Your task to perform on an android device: Open CNN.com Image 0: 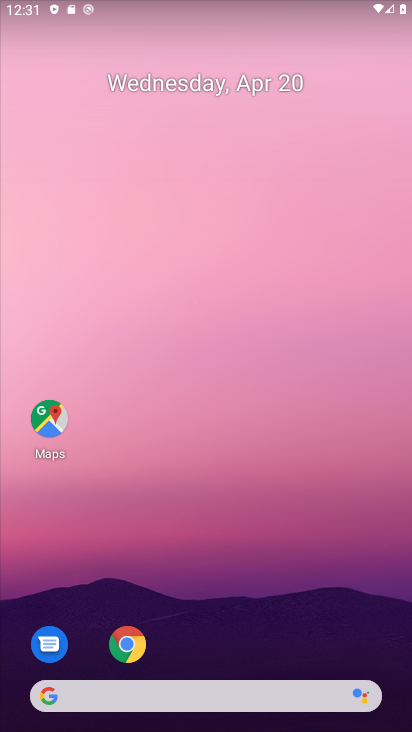
Step 0: click (108, 697)
Your task to perform on an android device: Open CNN.com Image 1: 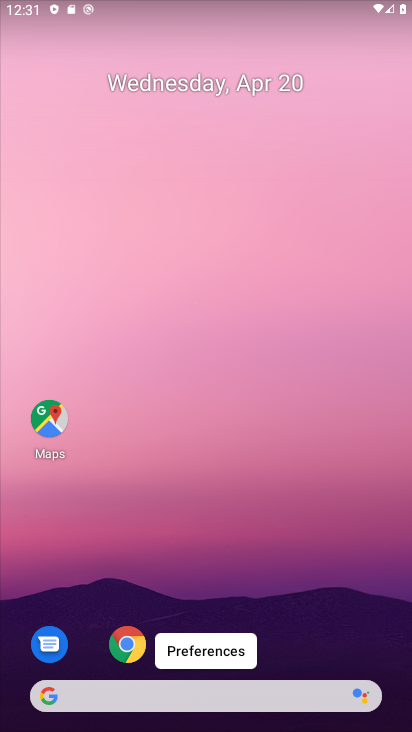
Step 1: click (108, 697)
Your task to perform on an android device: Open CNN.com Image 2: 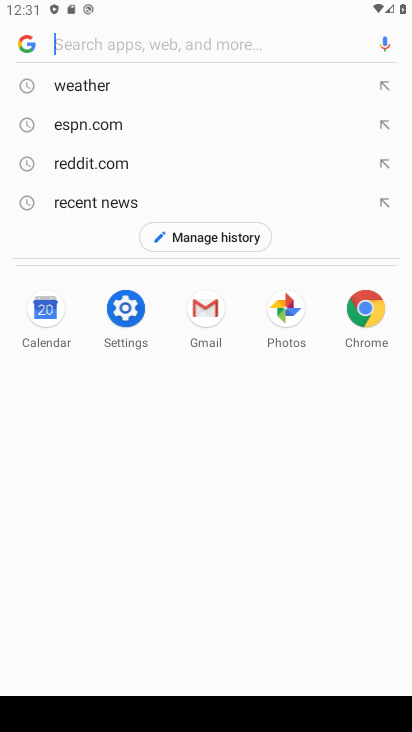
Step 2: type "cnn.com"
Your task to perform on an android device: Open CNN.com Image 3: 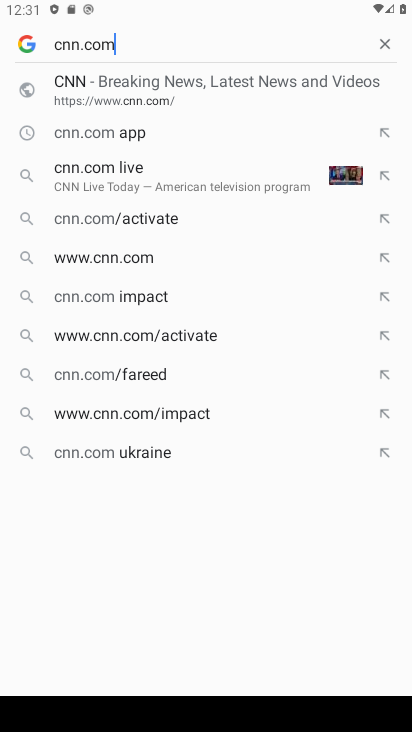
Step 3: click (144, 84)
Your task to perform on an android device: Open CNN.com Image 4: 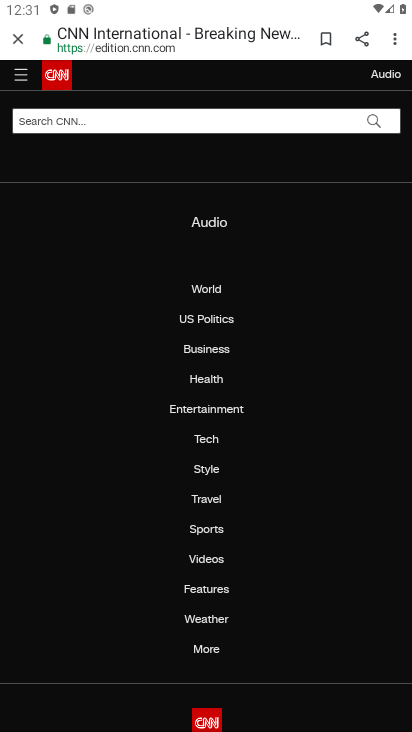
Step 4: task complete